Your task to perform on an android device: turn off translation in the chrome app Image 0: 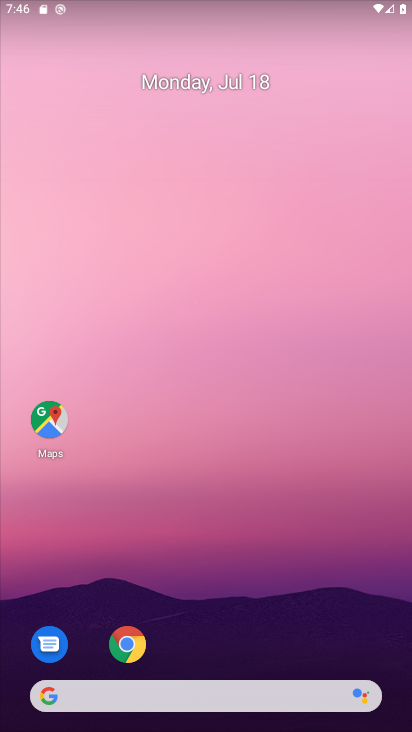
Step 0: click (141, 652)
Your task to perform on an android device: turn off translation in the chrome app Image 1: 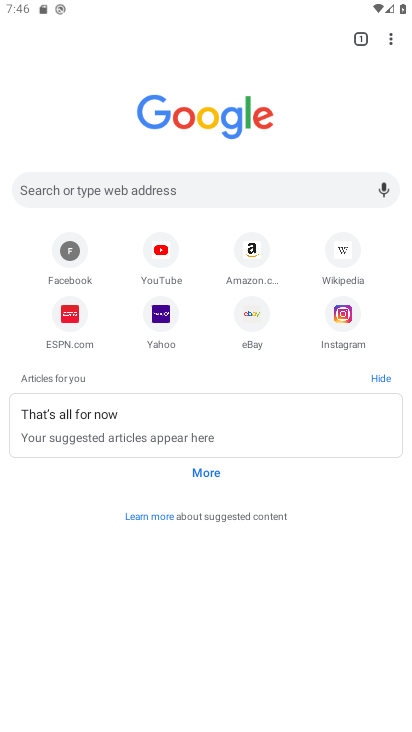
Step 1: click (391, 44)
Your task to perform on an android device: turn off translation in the chrome app Image 2: 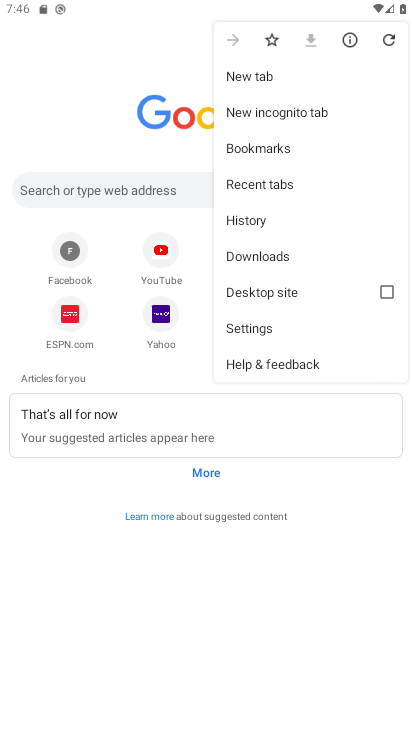
Step 2: click (257, 323)
Your task to perform on an android device: turn off translation in the chrome app Image 3: 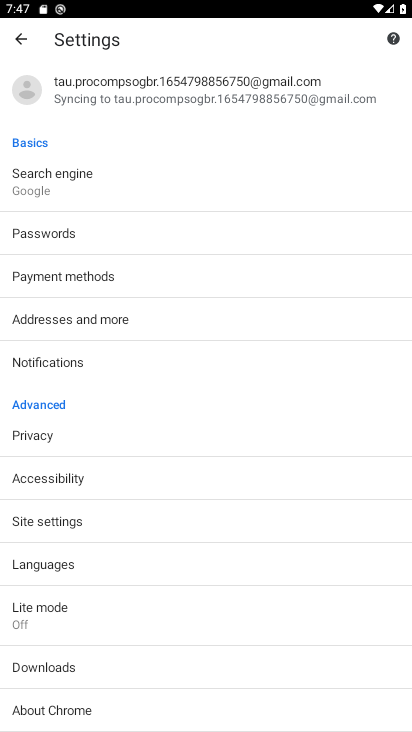
Step 3: click (195, 566)
Your task to perform on an android device: turn off translation in the chrome app Image 4: 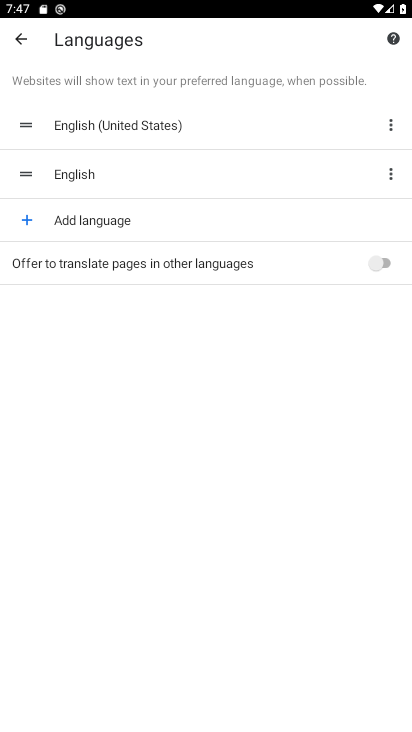
Step 4: click (386, 258)
Your task to perform on an android device: turn off translation in the chrome app Image 5: 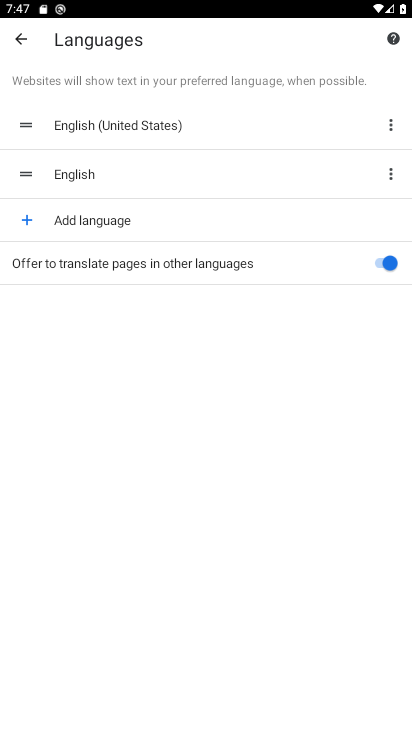
Step 5: task complete